Your task to perform on an android device: turn on airplane mode Image 0: 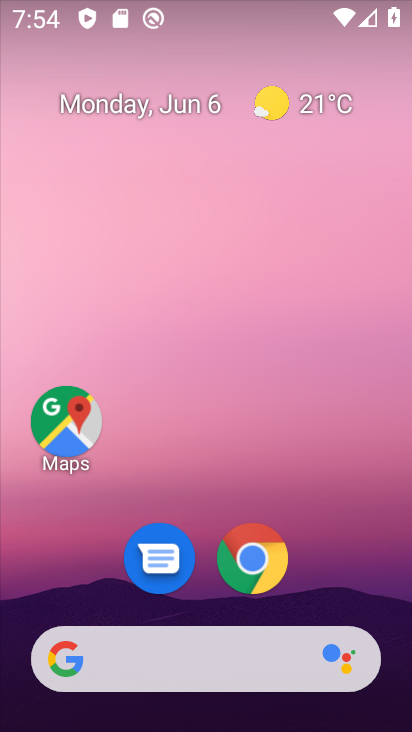
Step 0: drag from (87, 609) to (212, 140)
Your task to perform on an android device: turn on airplane mode Image 1: 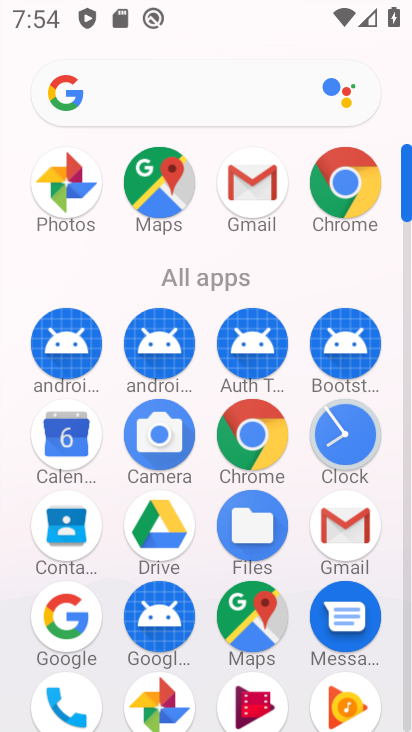
Step 1: drag from (239, 608) to (284, 234)
Your task to perform on an android device: turn on airplane mode Image 2: 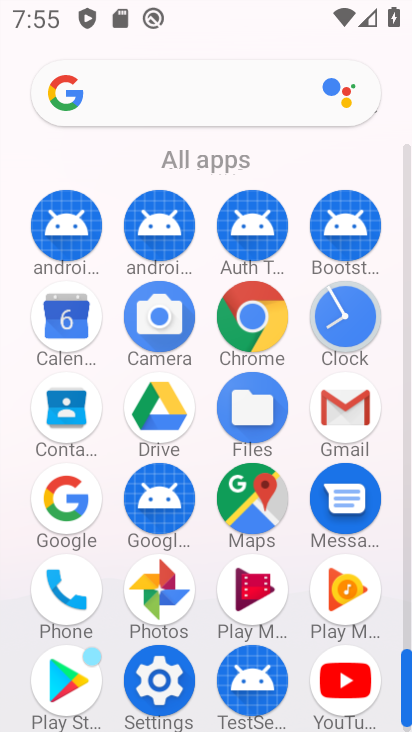
Step 2: click (151, 681)
Your task to perform on an android device: turn on airplane mode Image 3: 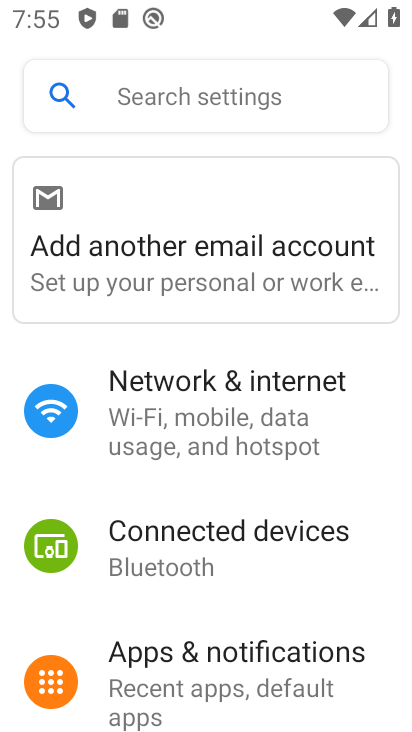
Step 3: click (244, 421)
Your task to perform on an android device: turn on airplane mode Image 4: 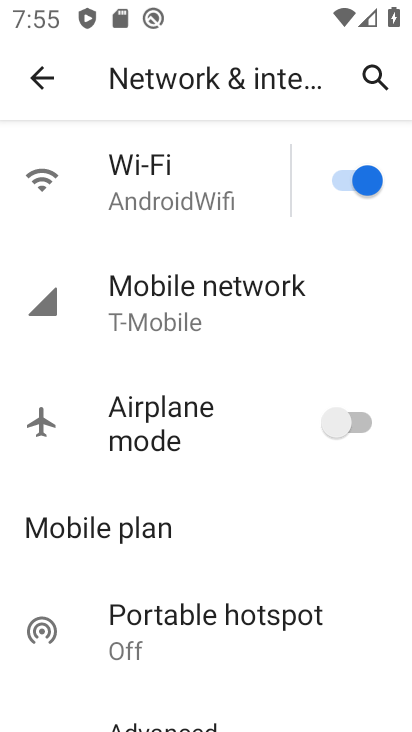
Step 4: click (369, 421)
Your task to perform on an android device: turn on airplane mode Image 5: 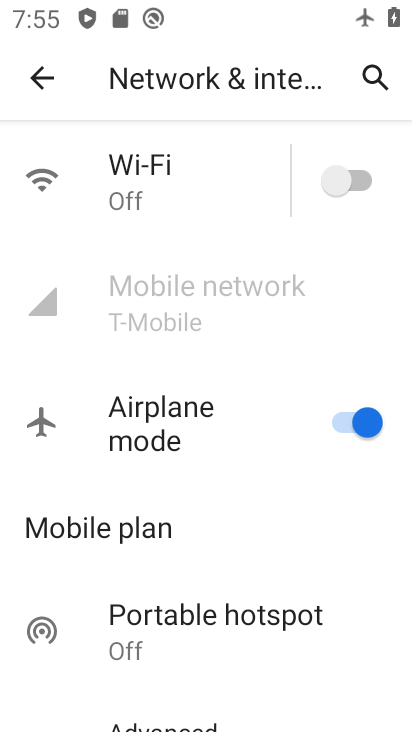
Step 5: task complete